Your task to perform on an android device: turn off smart reply in the gmail app Image 0: 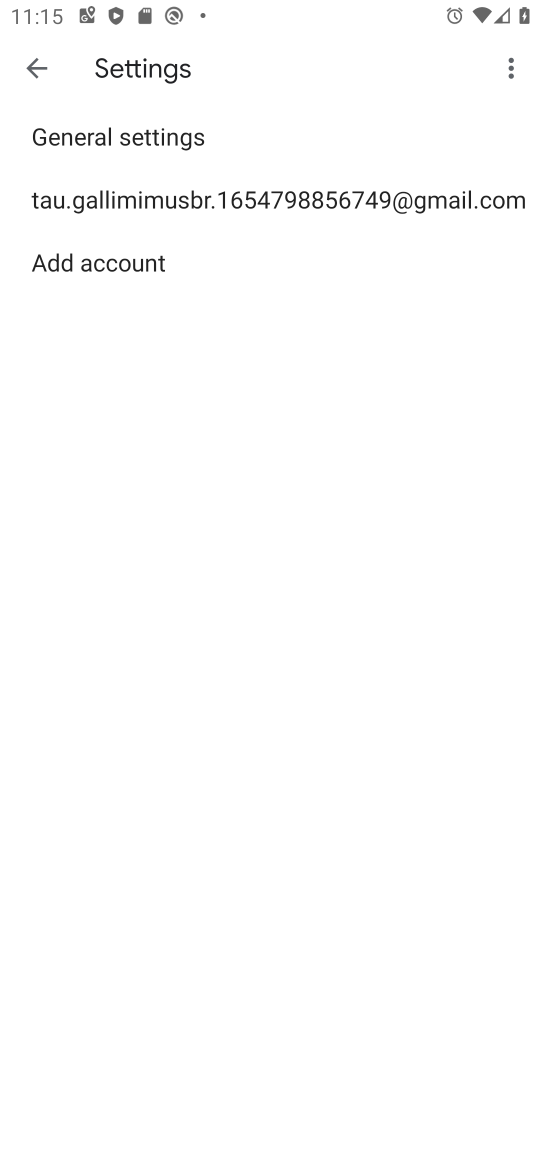
Step 0: click (62, 195)
Your task to perform on an android device: turn off smart reply in the gmail app Image 1: 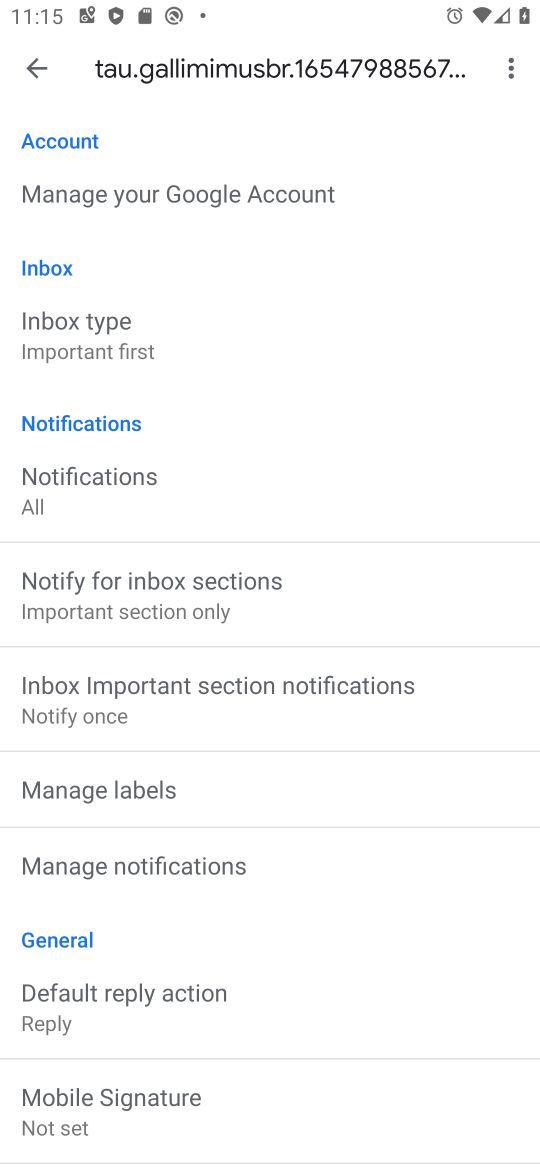
Step 1: drag from (77, 1005) to (66, 261)
Your task to perform on an android device: turn off smart reply in the gmail app Image 2: 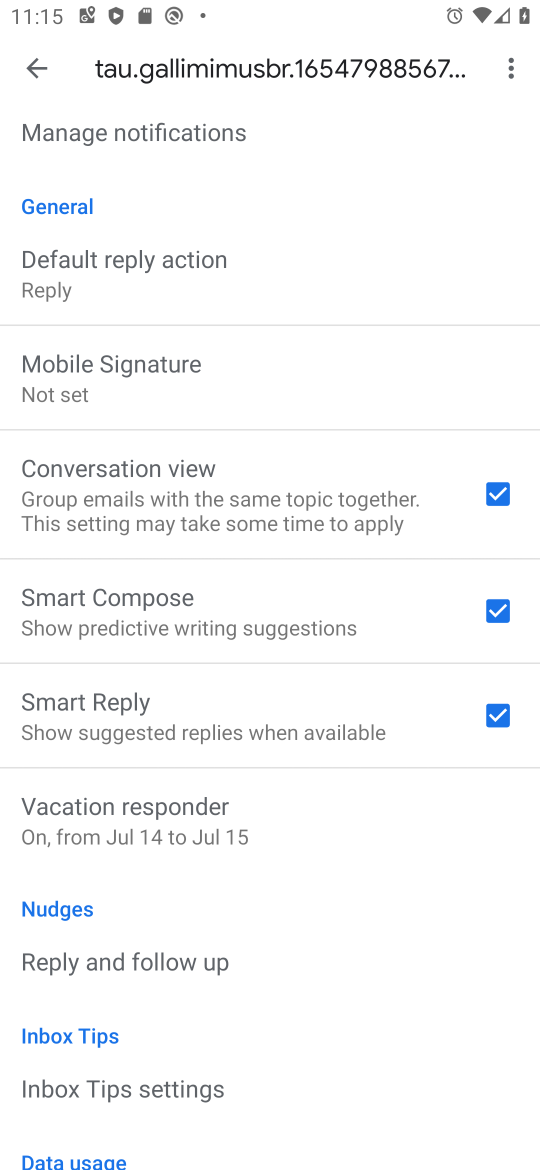
Step 2: click (175, 749)
Your task to perform on an android device: turn off smart reply in the gmail app Image 3: 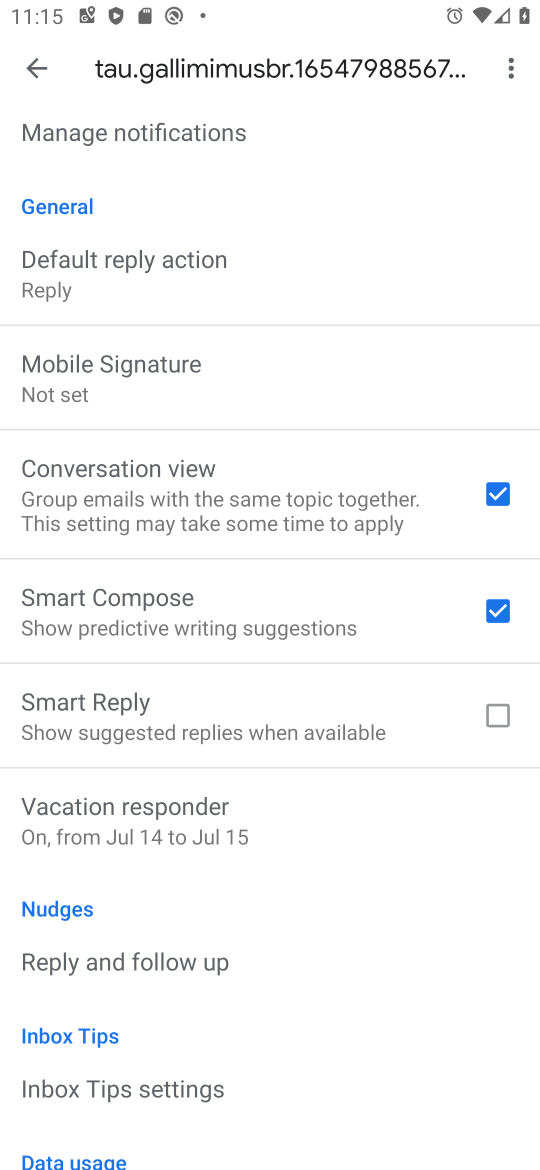
Step 3: task complete